Your task to perform on an android device: Open calendar and show me the third week of next month Image 0: 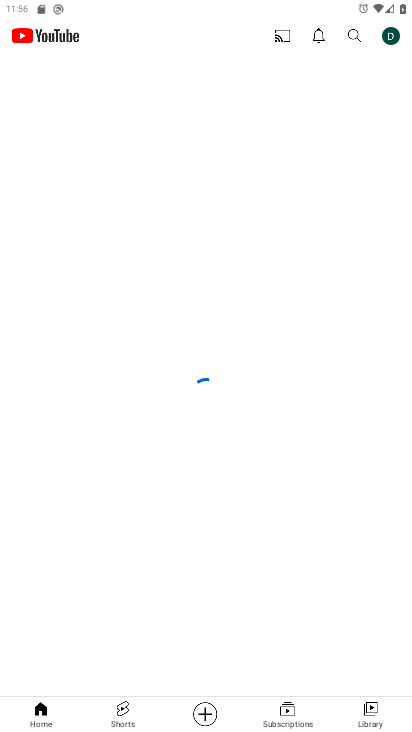
Step 0: press home button
Your task to perform on an android device: Open calendar and show me the third week of next month Image 1: 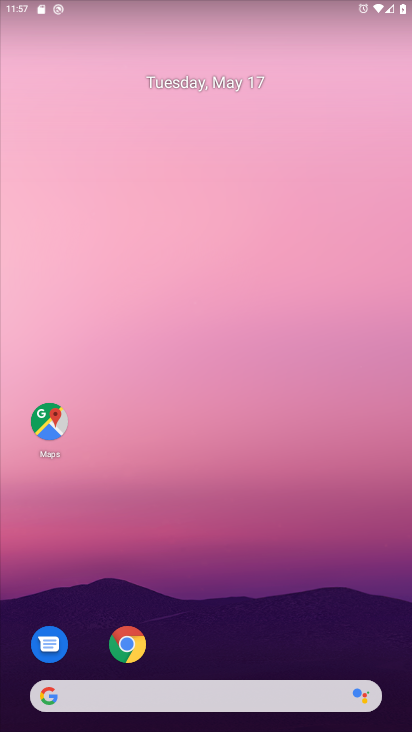
Step 1: drag from (225, 650) to (219, 65)
Your task to perform on an android device: Open calendar and show me the third week of next month Image 2: 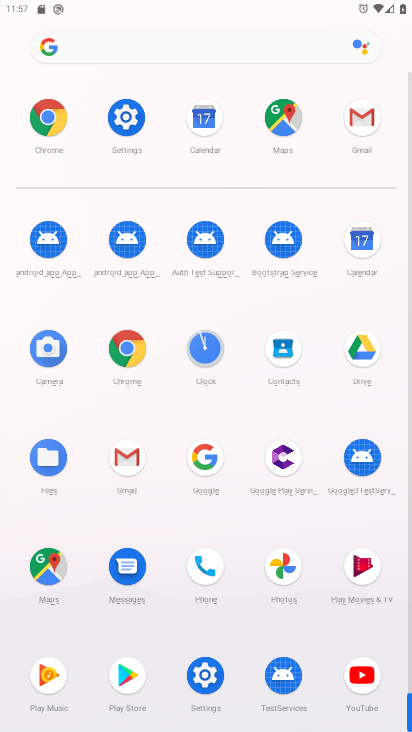
Step 2: click (361, 236)
Your task to perform on an android device: Open calendar and show me the third week of next month Image 3: 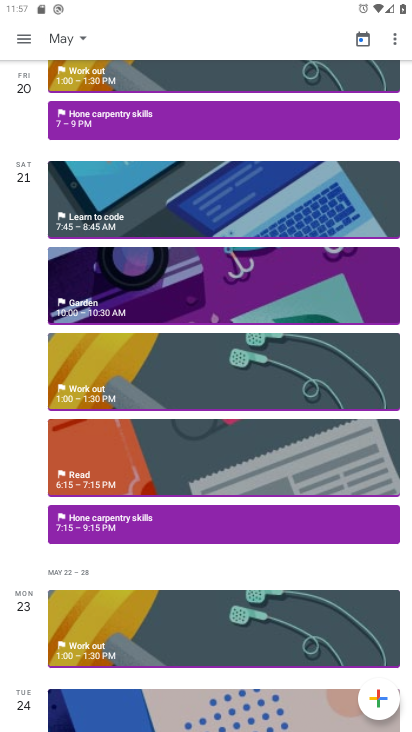
Step 3: click (77, 33)
Your task to perform on an android device: Open calendar and show me the third week of next month Image 4: 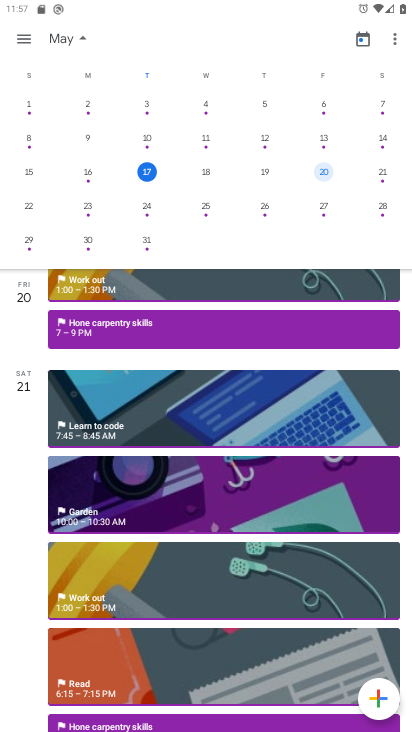
Step 4: drag from (358, 165) to (0, 173)
Your task to perform on an android device: Open calendar and show me the third week of next month Image 5: 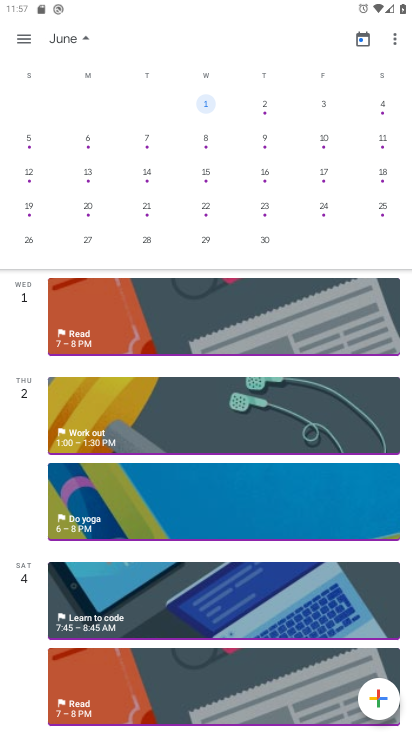
Step 5: click (22, 169)
Your task to perform on an android device: Open calendar and show me the third week of next month Image 6: 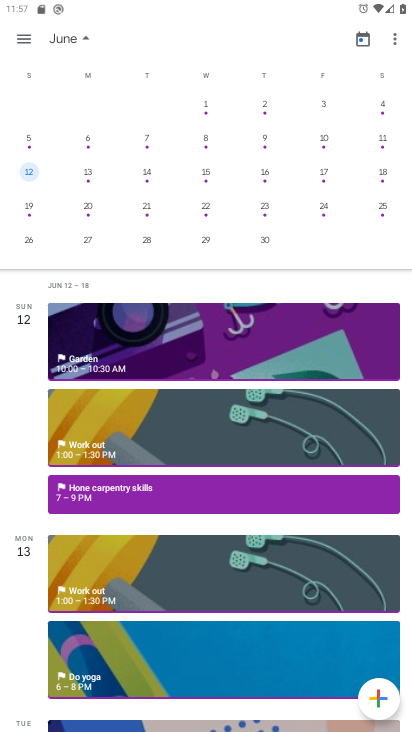
Step 6: click (14, 343)
Your task to perform on an android device: Open calendar and show me the third week of next month Image 7: 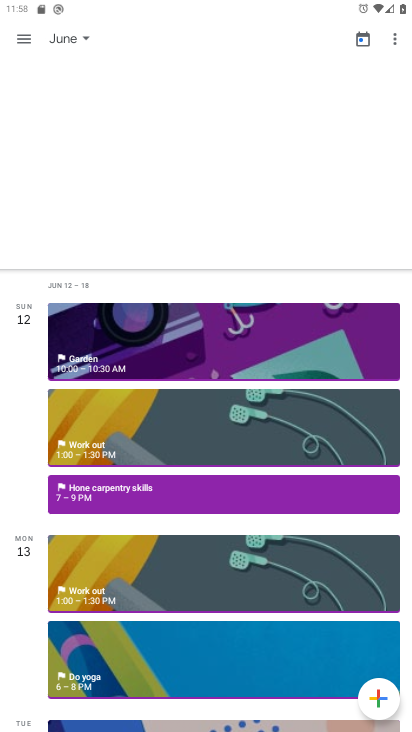
Step 7: drag from (29, 337) to (34, 130)
Your task to perform on an android device: Open calendar and show me the third week of next month Image 8: 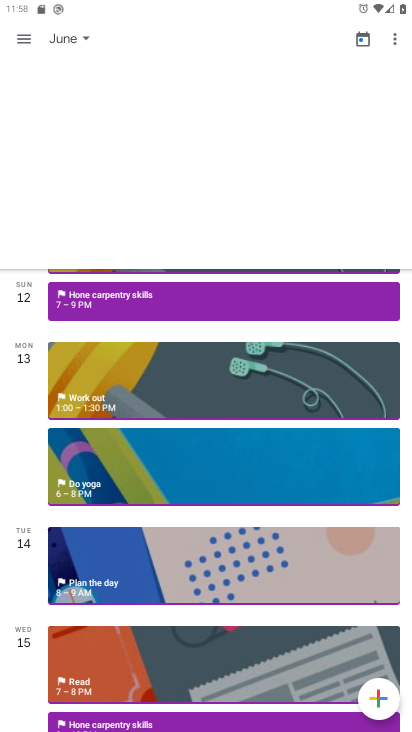
Step 8: drag from (26, 314) to (20, 623)
Your task to perform on an android device: Open calendar and show me the third week of next month Image 9: 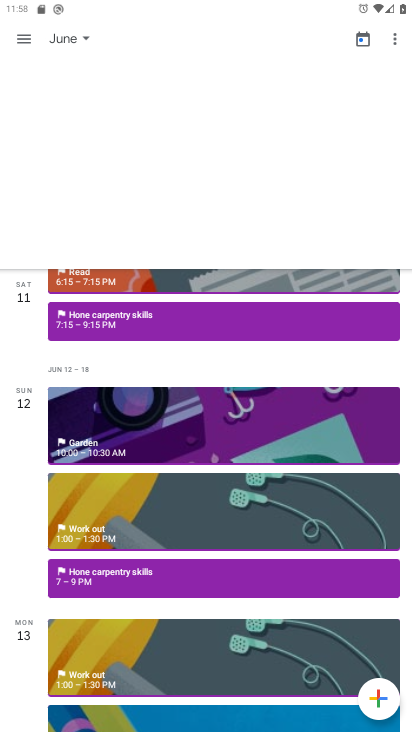
Step 9: click (83, 35)
Your task to perform on an android device: Open calendar and show me the third week of next month Image 10: 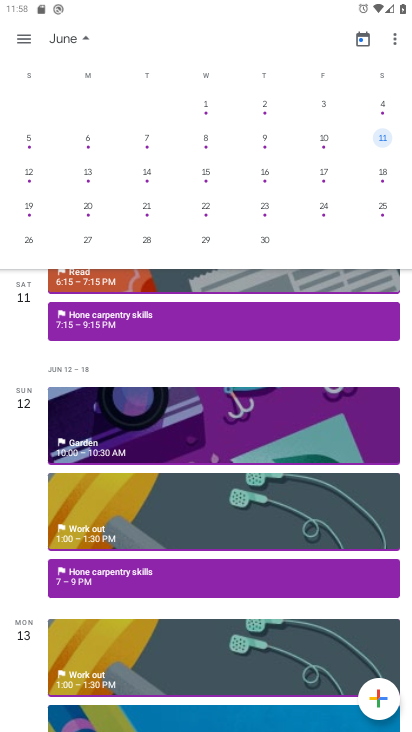
Step 10: click (85, 29)
Your task to perform on an android device: Open calendar and show me the third week of next month Image 11: 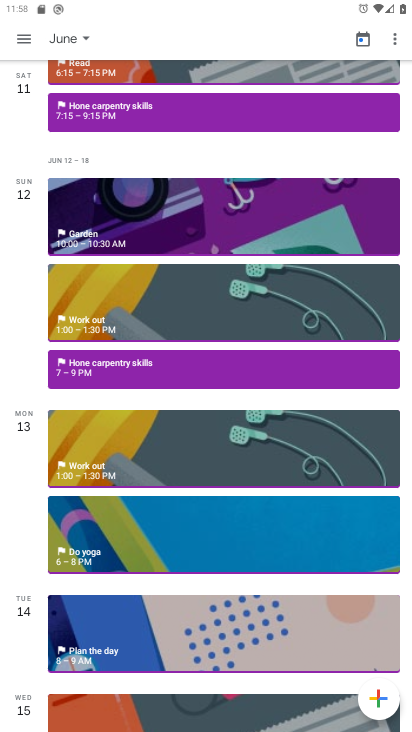
Step 11: task complete